Your task to perform on an android device: open app "Airtel Thanks" Image 0: 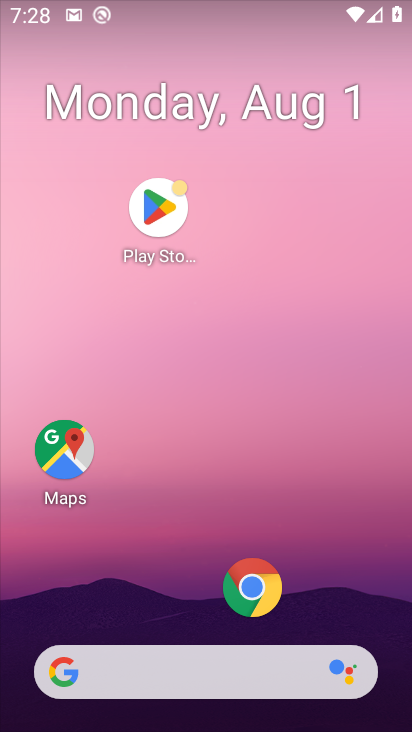
Step 0: click (172, 207)
Your task to perform on an android device: open app "Airtel Thanks" Image 1: 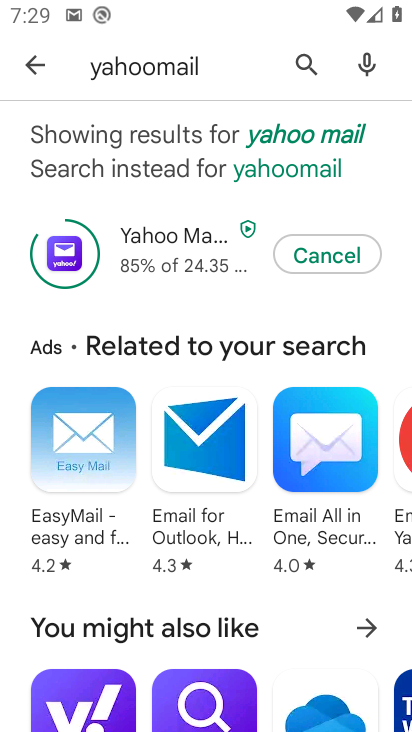
Step 1: click (306, 61)
Your task to perform on an android device: open app "Airtel Thanks" Image 2: 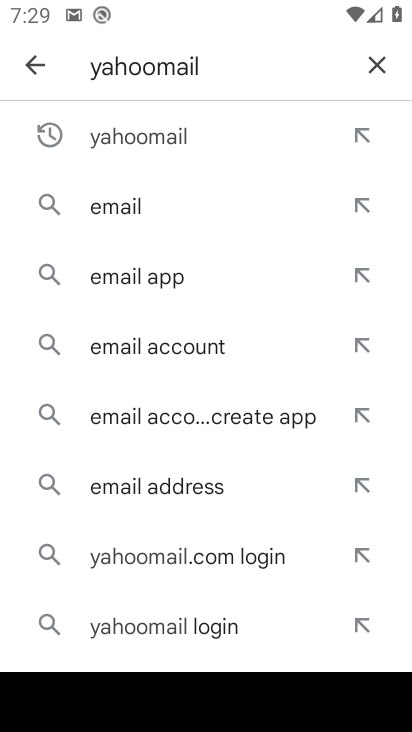
Step 2: click (396, 69)
Your task to perform on an android device: open app "Airtel Thanks" Image 3: 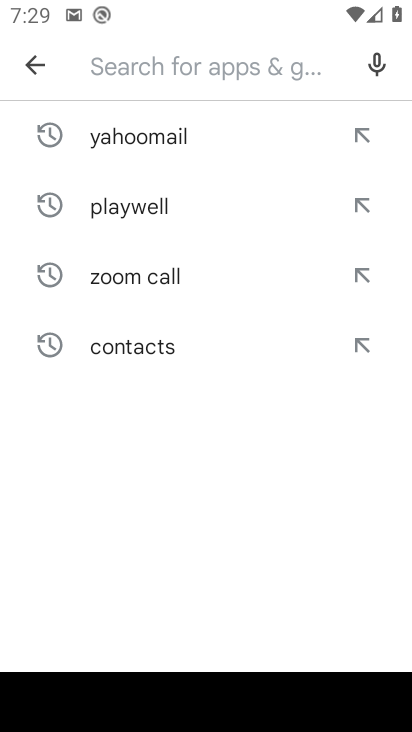
Step 3: type "airtel"
Your task to perform on an android device: open app "Airtel Thanks" Image 4: 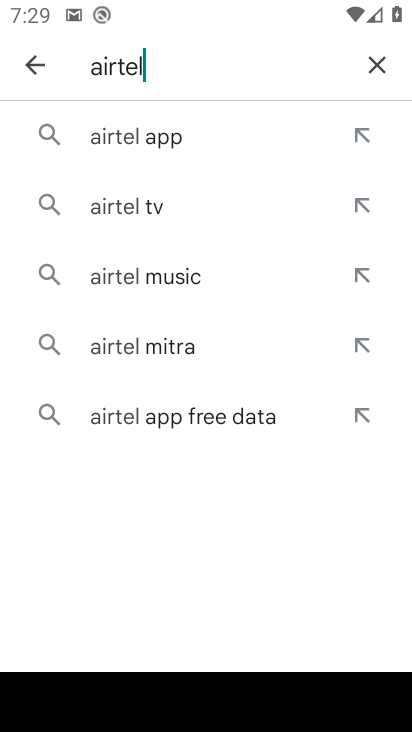
Step 4: click (164, 112)
Your task to perform on an android device: open app "Airtel Thanks" Image 5: 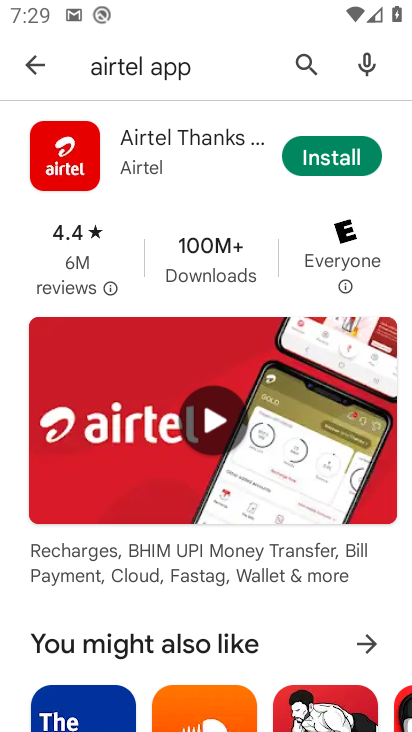
Step 5: click (326, 137)
Your task to perform on an android device: open app "Airtel Thanks" Image 6: 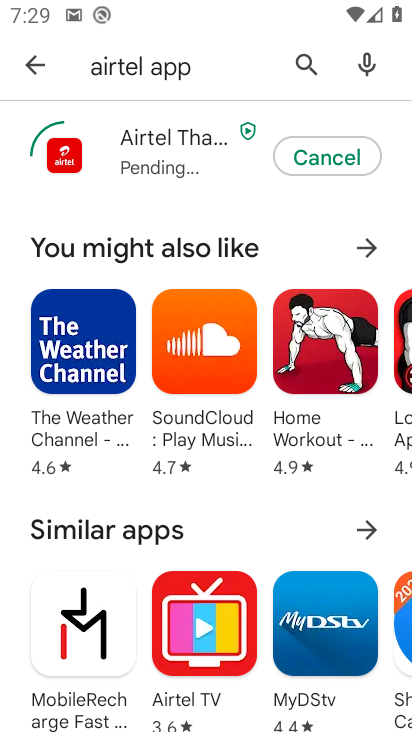
Step 6: task complete